Your task to perform on an android device: Open Google Image 0: 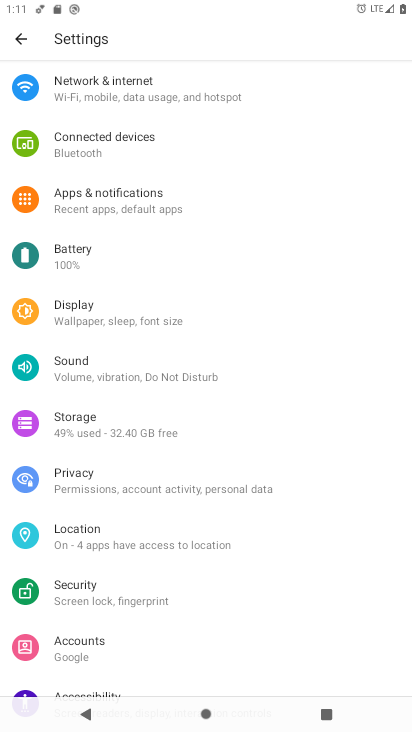
Step 0: press home button
Your task to perform on an android device: Open Google Image 1: 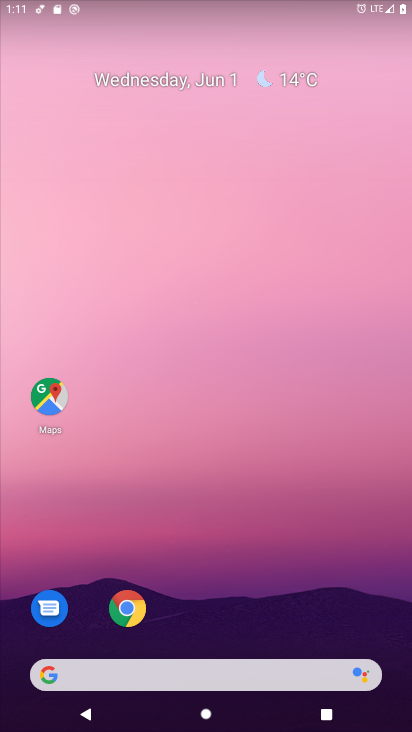
Step 1: click (49, 678)
Your task to perform on an android device: Open Google Image 2: 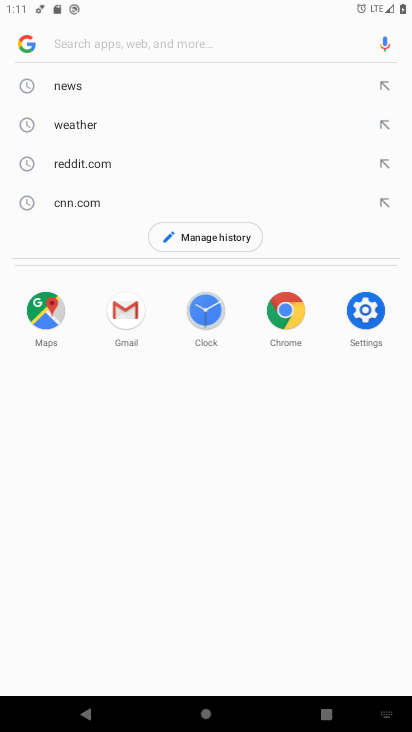
Step 2: click (34, 43)
Your task to perform on an android device: Open Google Image 3: 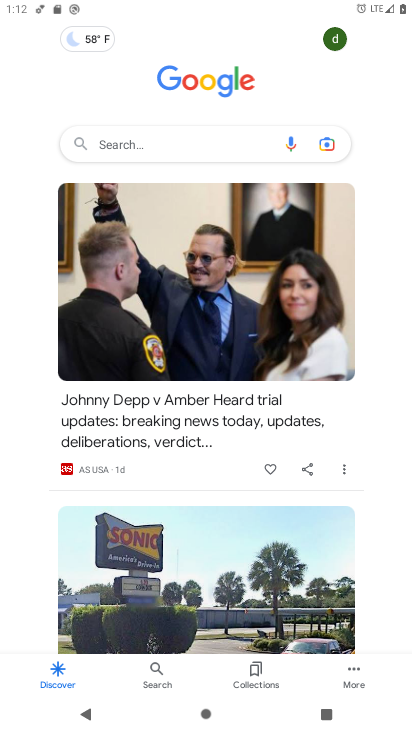
Step 3: task complete